Your task to perform on an android device: change the upload size in google photos Image 0: 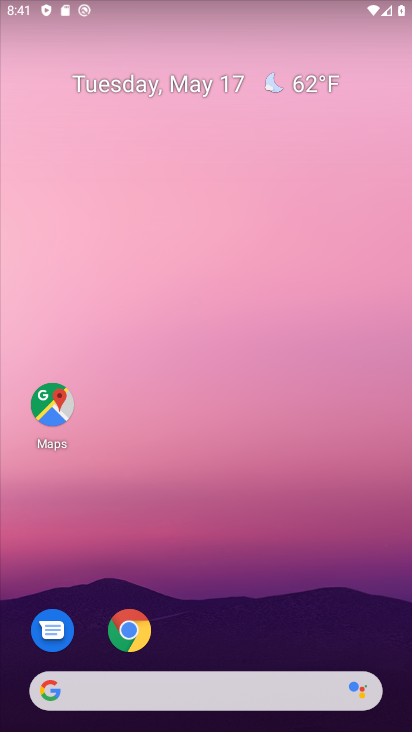
Step 0: click (282, 239)
Your task to perform on an android device: change the upload size in google photos Image 1: 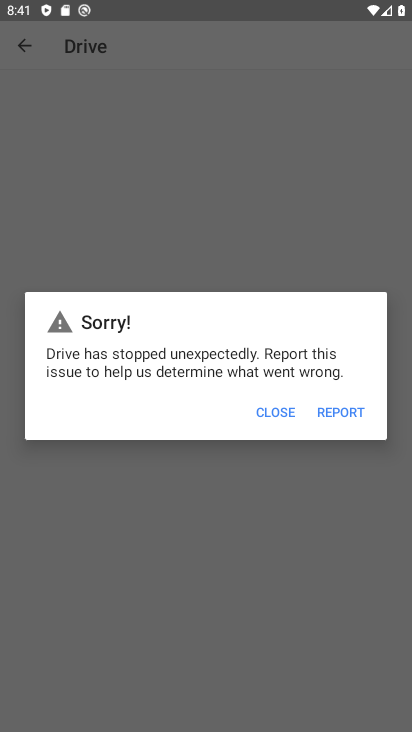
Step 1: click (289, 418)
Your task to perform on an android device: change the upload size in google photos Image 2: 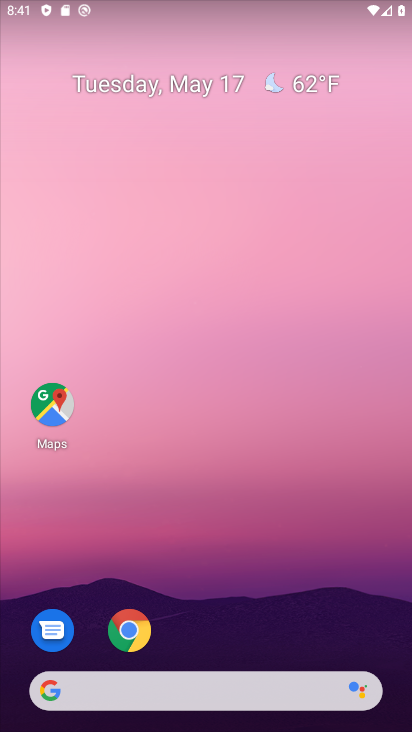
Step 2: drag from (218, 623) to (206, 254)
Your task to perform on an android device: change the upload size in google photos Image 3: 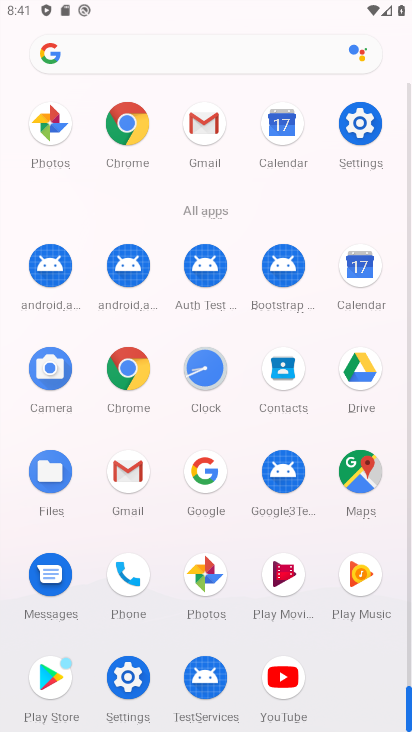
Step 3: click (206, 582)
Your task to perform on an android device: change the upload size in google photos Image 4: 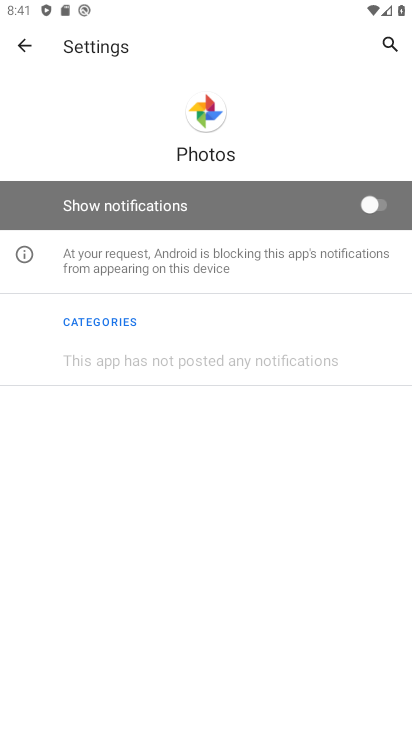
Step 4: click (24, 33)
Your task to perform on an android device: change the upload size in google photos Image 5: 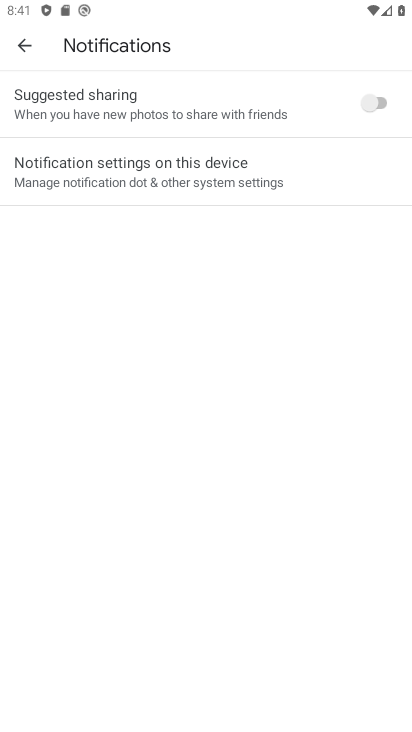
Step 5: click (15, 51)
Your task to perform on an android device: change the upload size in google photos Image 6: 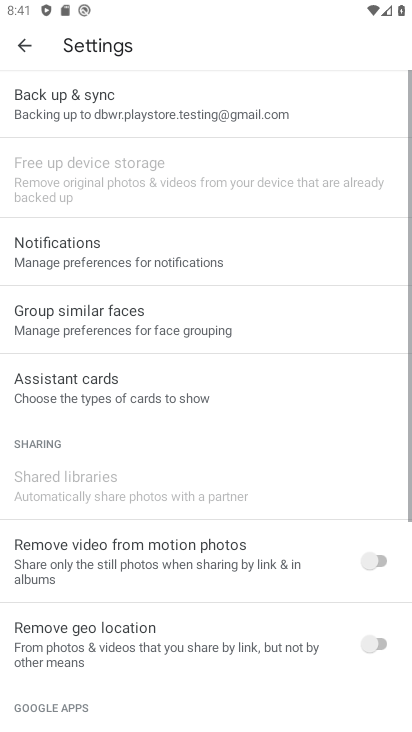
Step 6: click (89, 120)
Your task to perform on an android device: change the upload size in google photos Image 7: 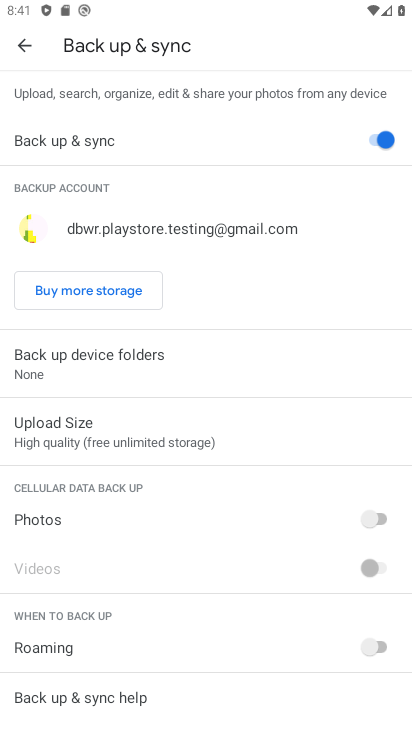
Step 7: click (65, 437)
Your task to perform on an android device: change the upload size in google photos Image 8: 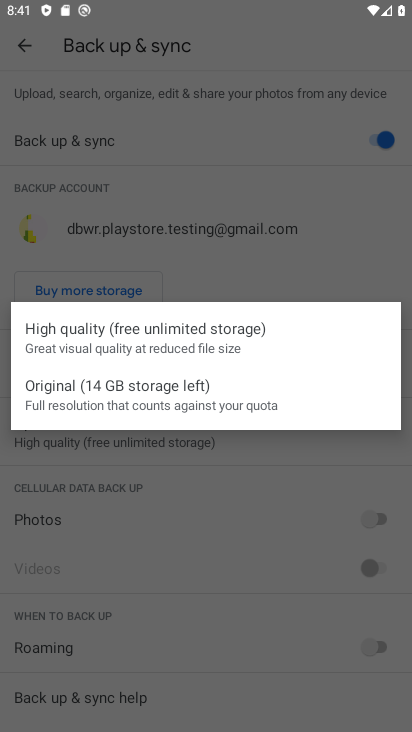
Step 8: click (65, 398)
Your task to perform on an android device: change the upload size in google photos Image 9: 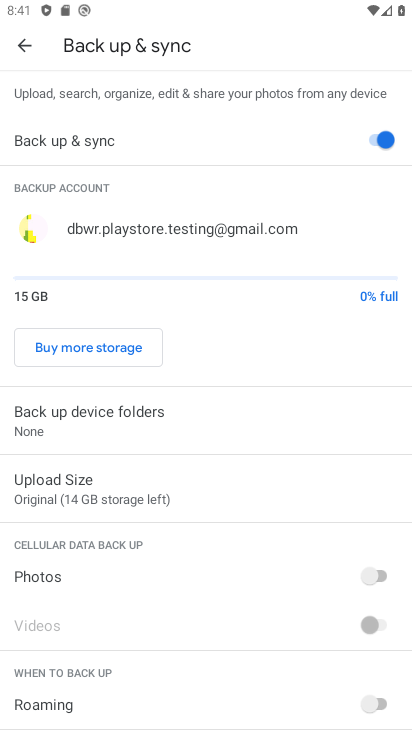
Step 9: task complete